Your task to perform on an android device: Find coffee shops on Maps Image 0: 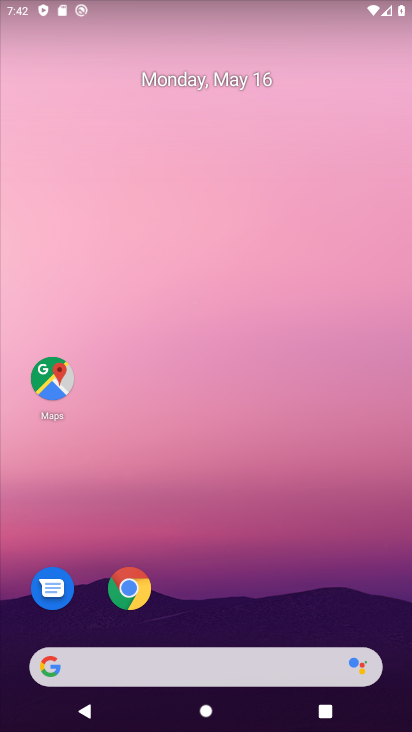
Step 0: click (57, 382)
Your task to perform on an android device: Find coffee shops on Maps Image 1: 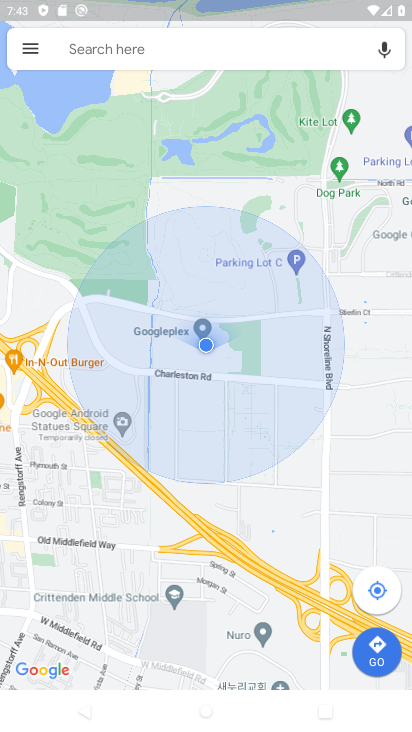
Step 1: click (117, 46)
Your task to perform on an android device: Find coffee shops on Maps Image 2: 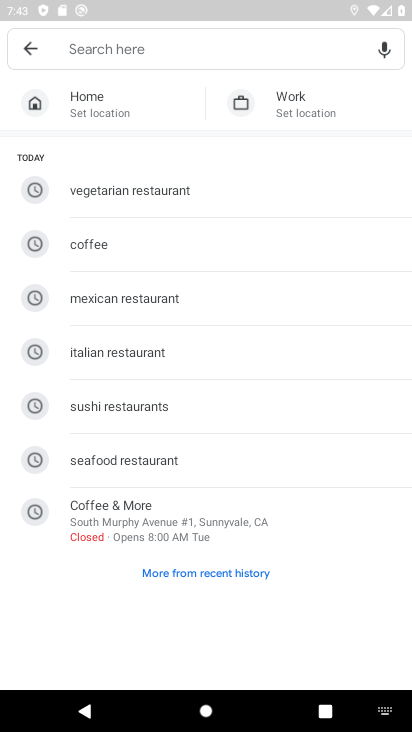
Step 2: type "coffee shops"
Your task to perform on an android device: Find coffee shops on Maps Image 3: 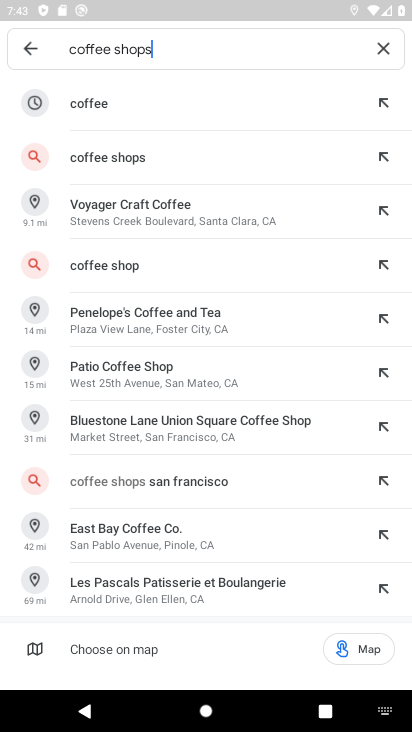
Step 3: click (162, 162)
Your task to perform on an android device: Find coffee shops on Maps Image 4: 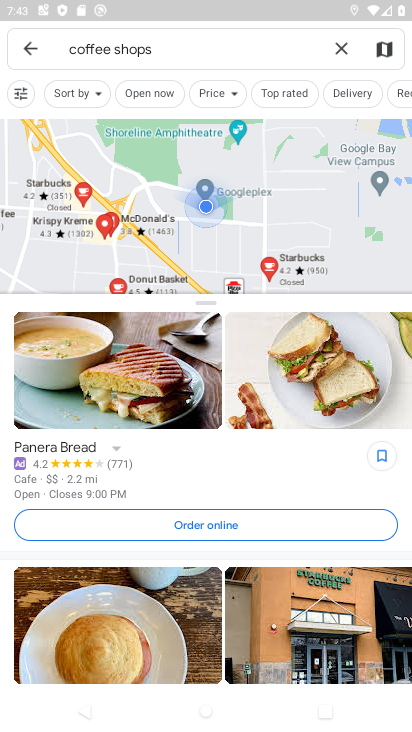
Step 4: task complete